Your task to perform on an android device: Open the phone app and click the voicemail tab. Image 0: 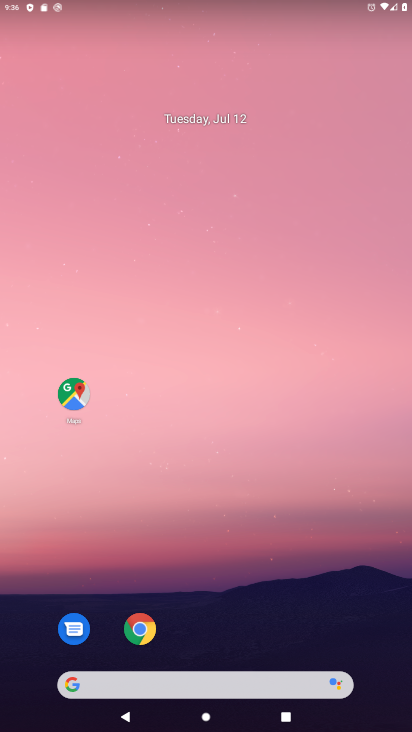
Step 0: drag from (370, 646) to (323, 194)
Your task to perform on an android device: Open the phone app and click the voicemail tab. Image 1: 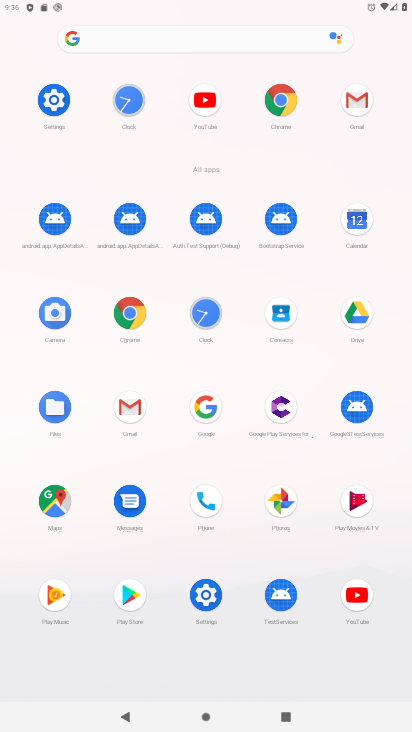
Step 1: click (201, 500)
Your task to perform on an android device: Open the phone app and click the voicemail tab. Image 2: 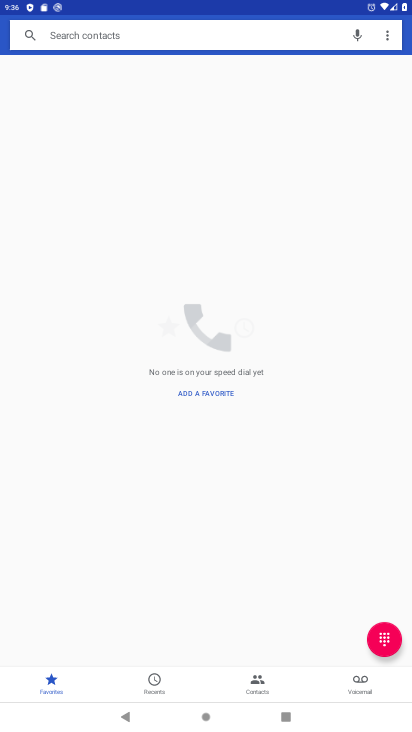
Step 2: click (357, 674)
Your task to perform on an android device: Open the phone app and click the voicemail tab. Image 3: 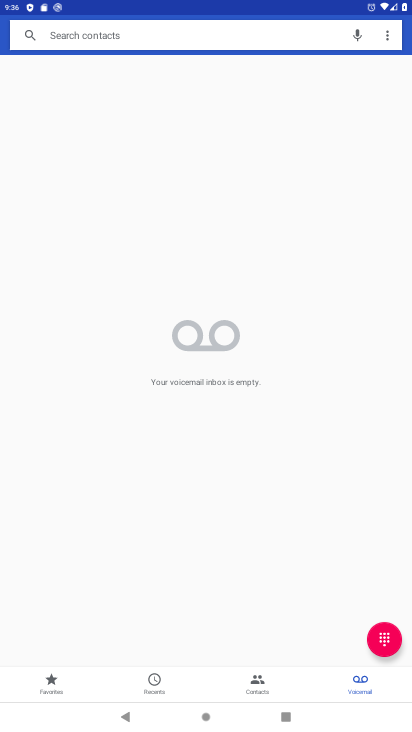
Step 3: task complete